Your task to perform on an android device: turn on the 12-hour format for clock Image 0: 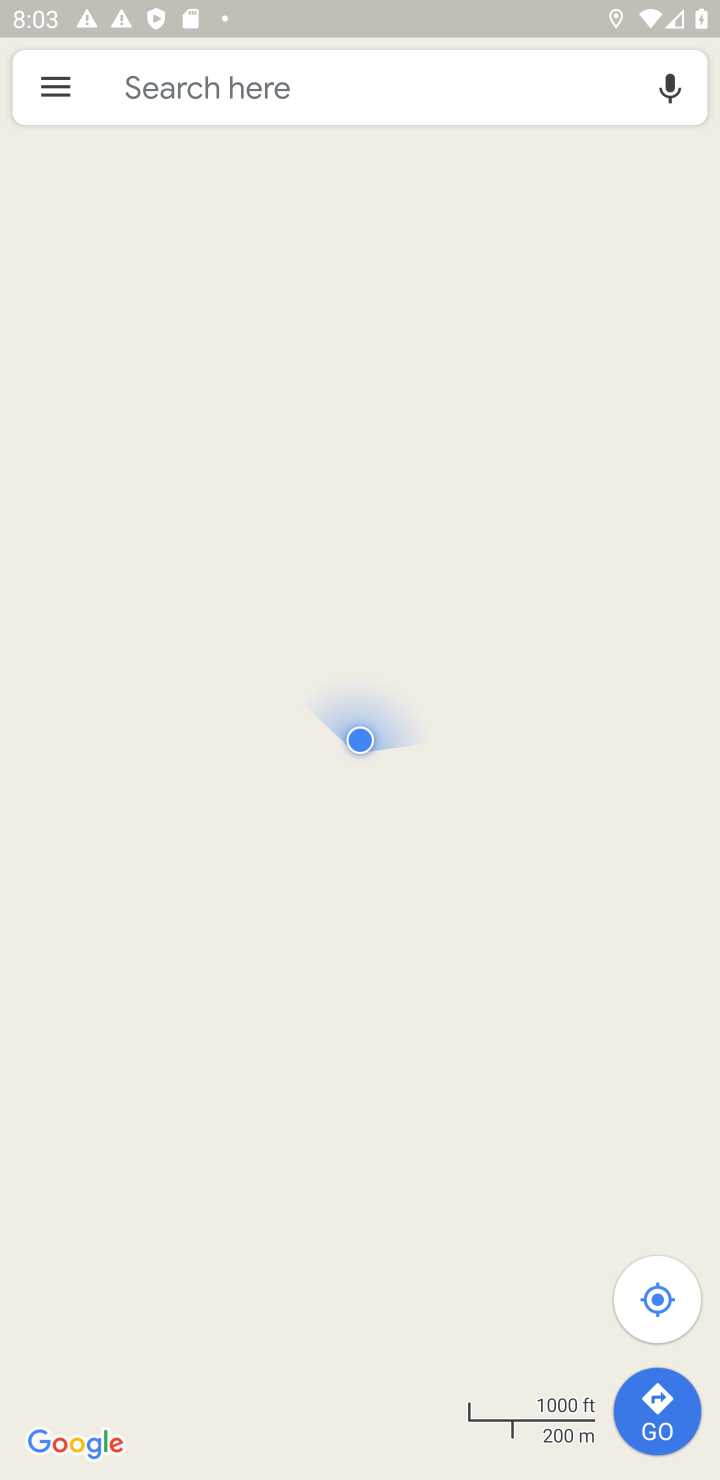
Step 0: press home button
Your task to perform on an android device: turn on the 12-hour format for clock Image 1: 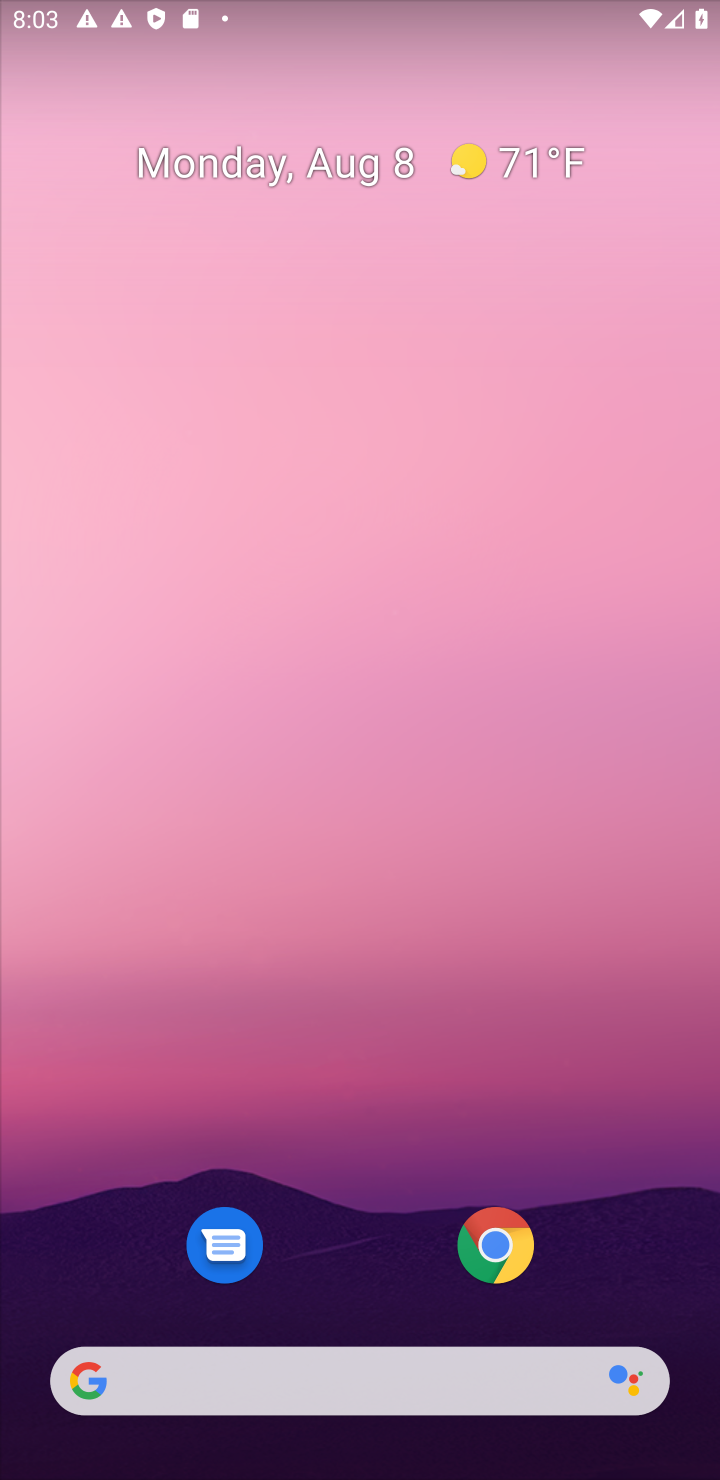
Step 1: drag from (329, 1246) to (401, 67)
Your task to perform on an android device: turn on the 12-hour format for clock Image 2: 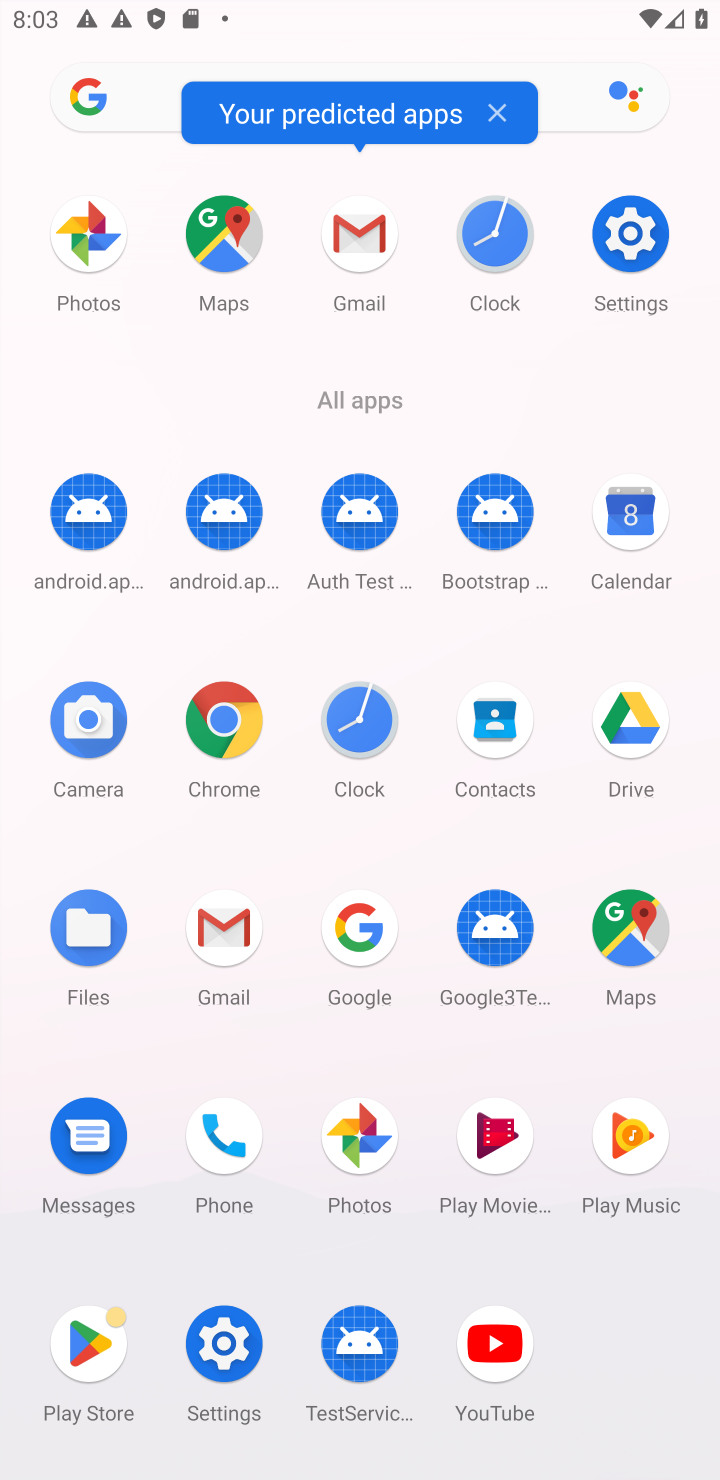
Step 2: click (646, 242)
Your task to perform on an android device: turn on the 12-hour format for clock Image 3: 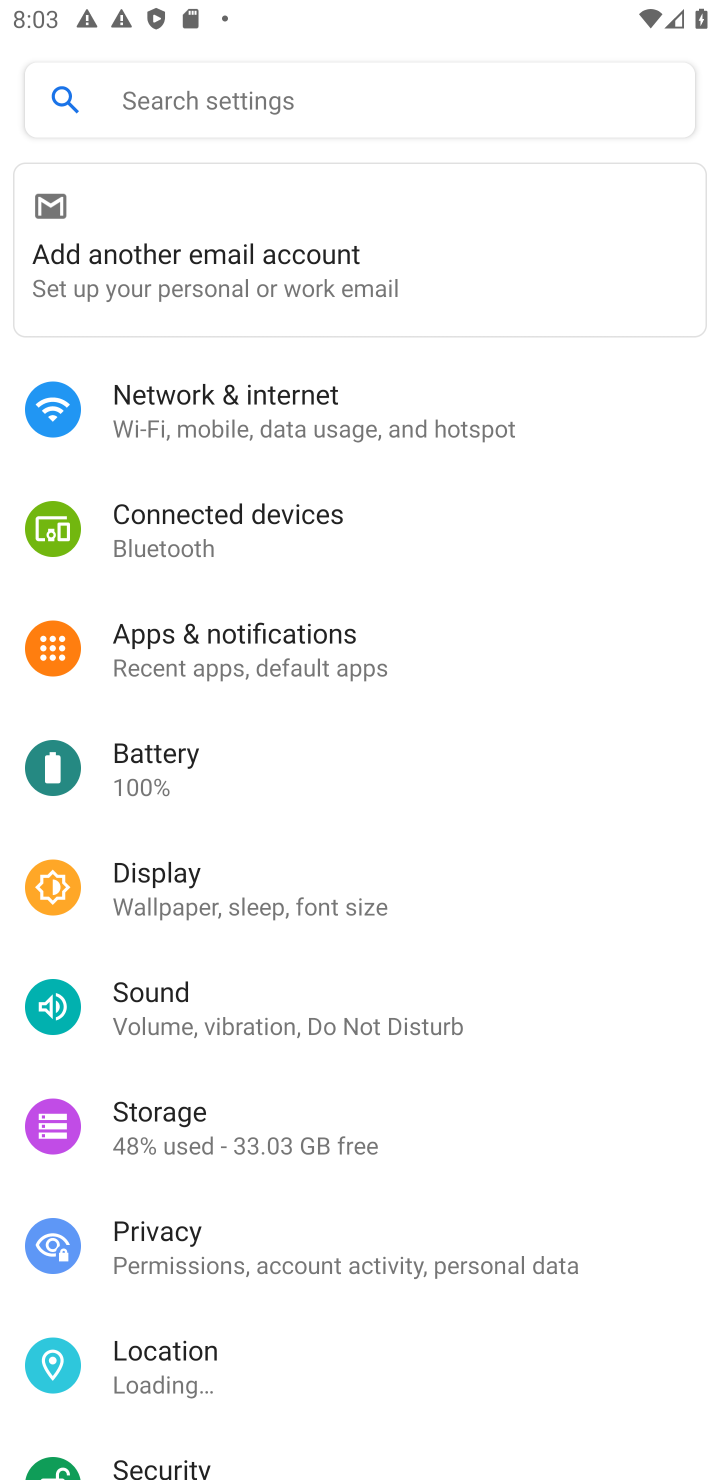
Step 3: drag from (242, 1320) to (335, 847)
Your task to perform on an android device: turn on the 12-hour format for clock Image 4: 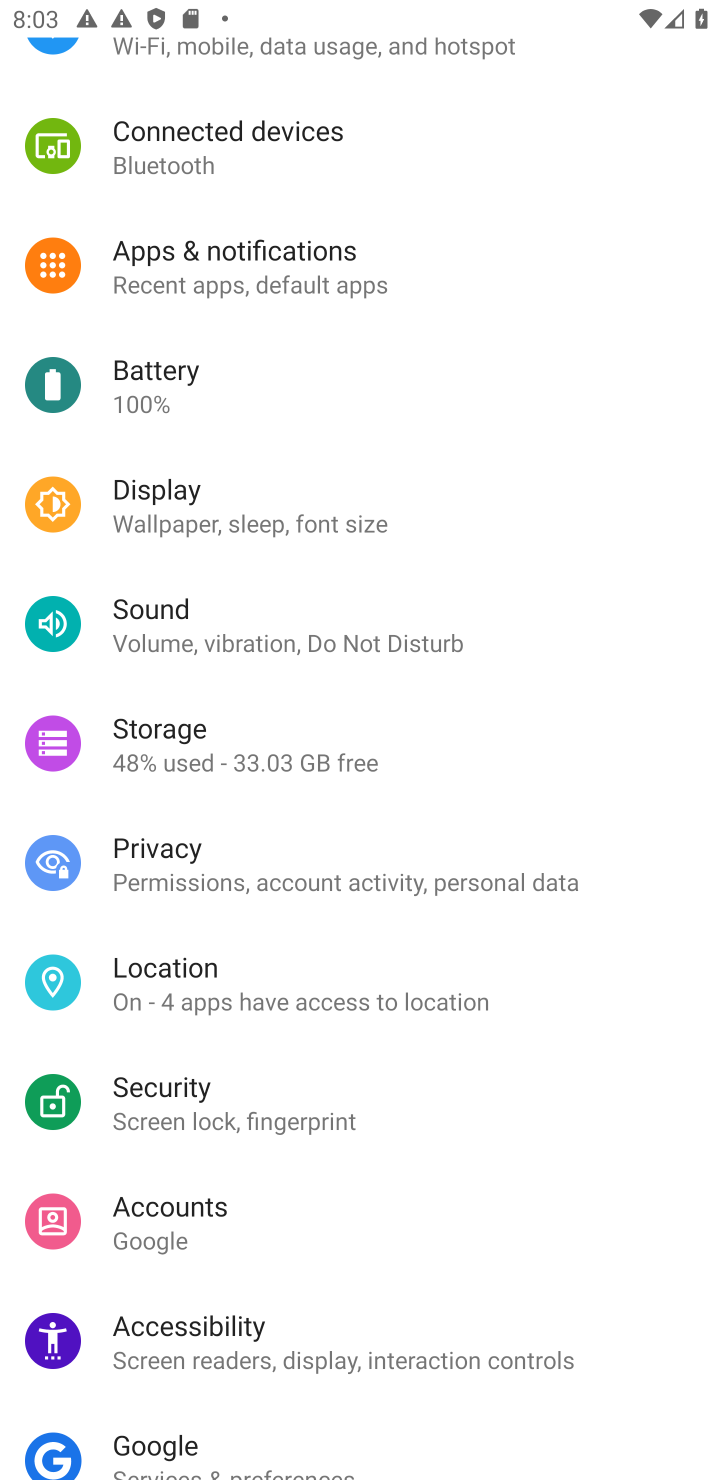
Step 4: drag from (207, 1289) to (333, 571)
Your task to perform on an android device: turn on the 12-hour format for clock Image 5: 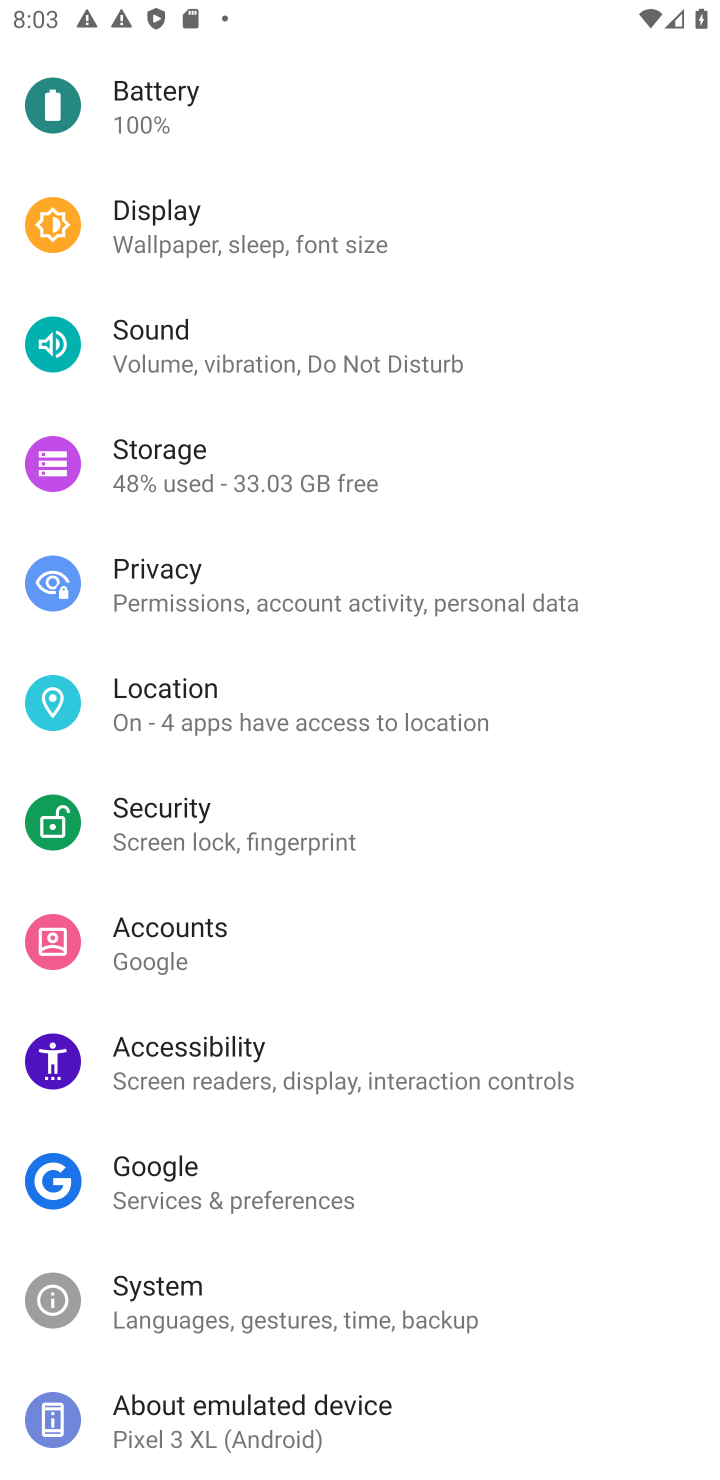
Step 5: click (213, 1308)
Your task to perform on an android device: turn on the 12-hour format for clock Image 6: 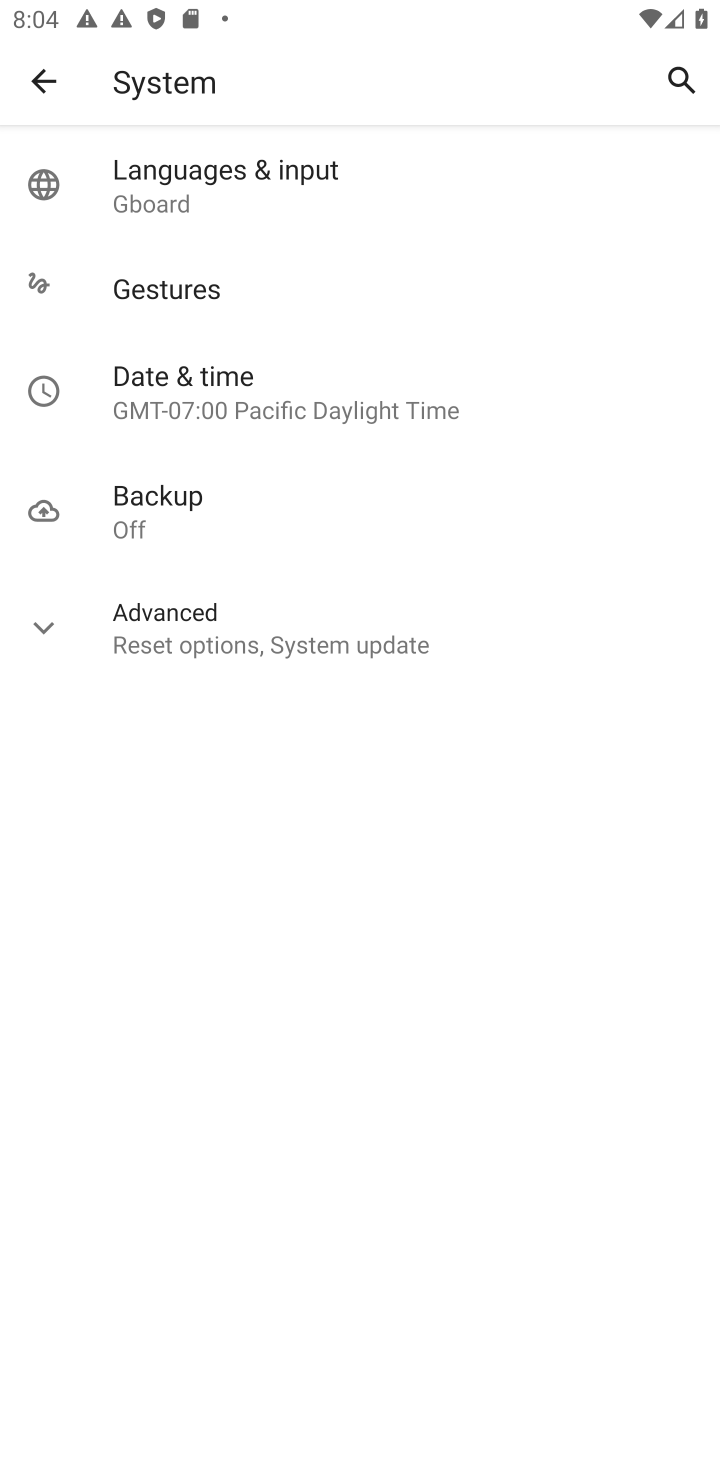
Step 6: click (221, 416)
Your task to perform on an android device: turn on the 12-hour format for clock Image 7: 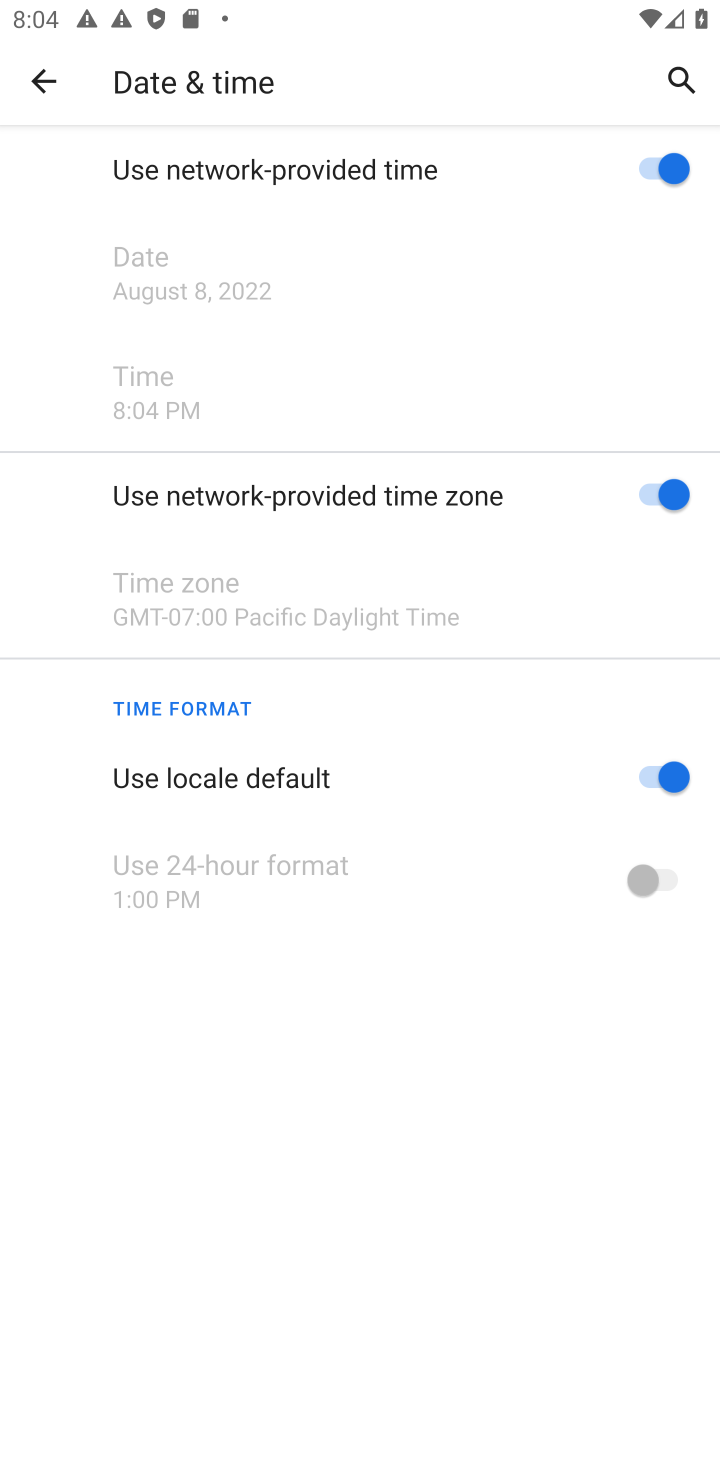
Step 7: task complete